Your task to perform on an android device: move a message to another label in the gmail app Image 0: 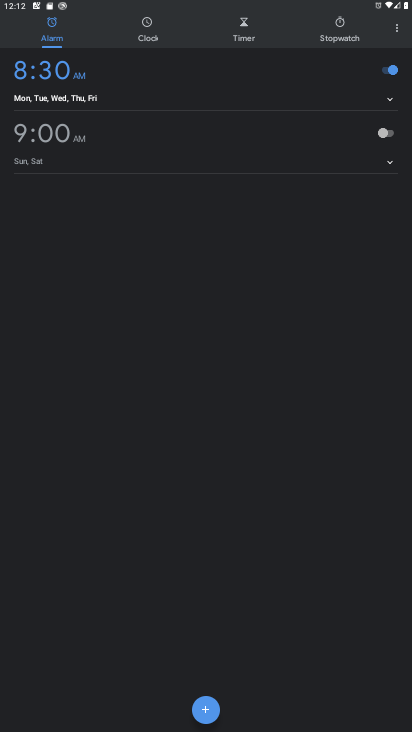
Step 0: press home button
Your task to perform on an android device: move a message to another label in the gmail app Image 1: 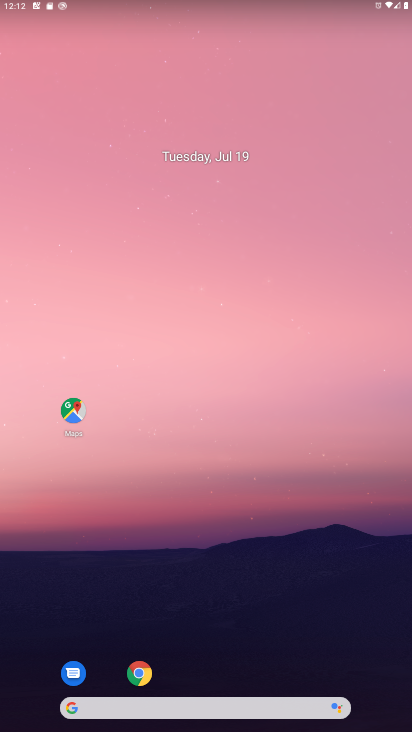
Step 1: drag from (216, 237) to (220, 199)
Your task to perform on an android device: move a message to another label in the gmail app Image 2: 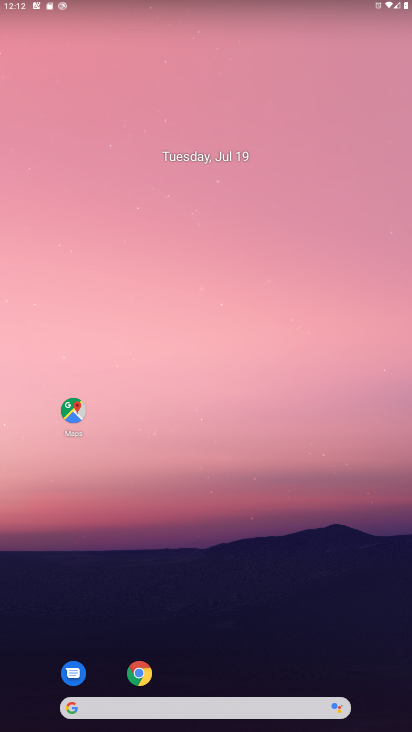
Step 2: drag from (225, 646) to (225, 207)
Your task to perform on an android device: move a message to another label in the gmail app Image 3: 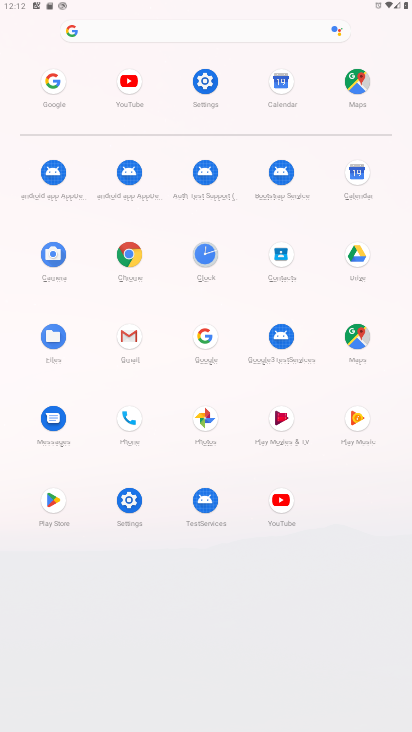
Step 3: click (142, 341)
Your task to perform on an android device: move a message to another label in the gmail app Image 4: 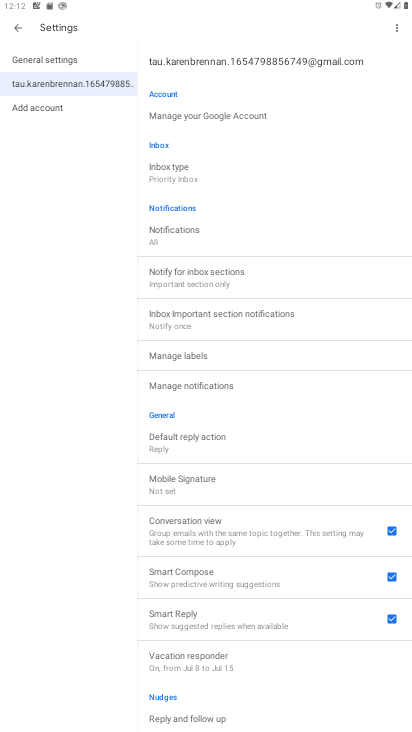
Step 4: click (21, 29)
Your task to perform on an android device: move a message to another label in the gmail app Image 5: 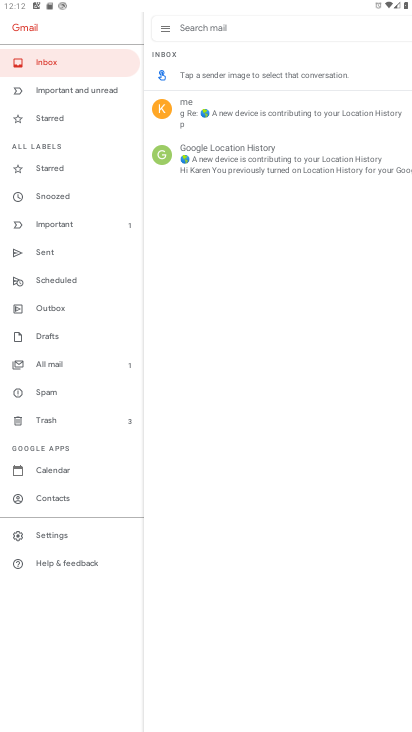
Step 5: click (251, 169)
Your task to perform on an android device: move a message to another label in the gmail app Image 6: 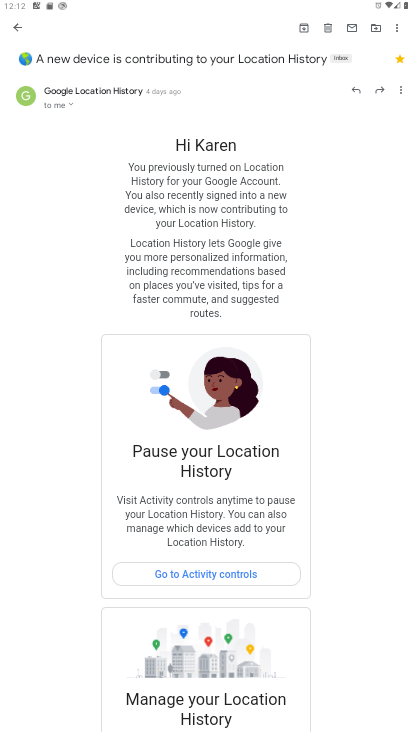
Step 6: click (391, 33)
Your task to perform on an android device: move a message to another label in the gmail app Image 7: 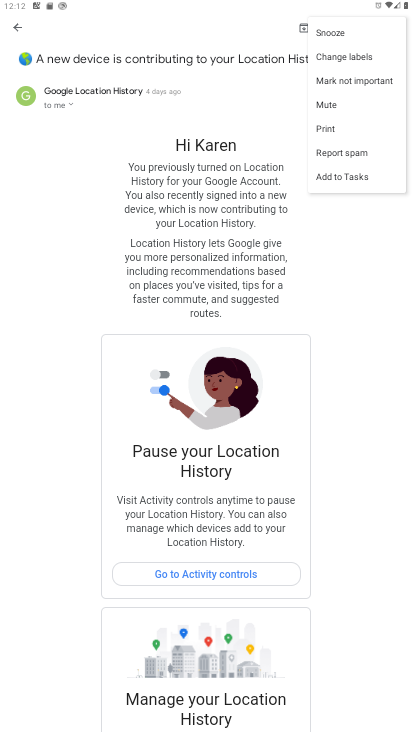
Step 7: click (368, 52)
Your task to perform on an android device: move a message to another label in the gmail app Image 8: 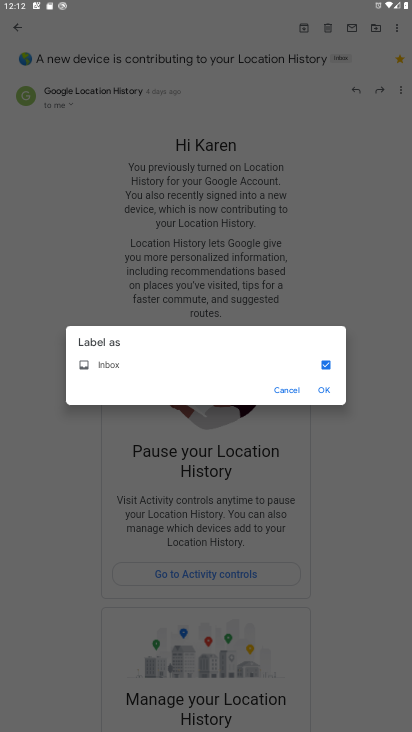
Step 8: click (323, 389)
Your task to perform on an android device: move a message to another label in the gmail app Image 9: 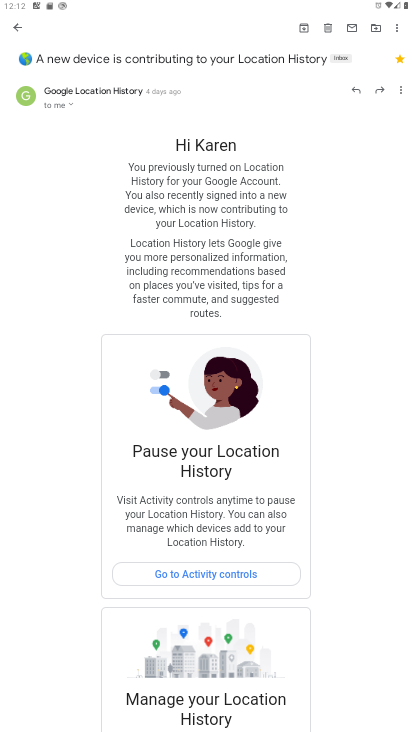
Step 9: task complete